Your task to perform on an android device: check battery use Image 0: 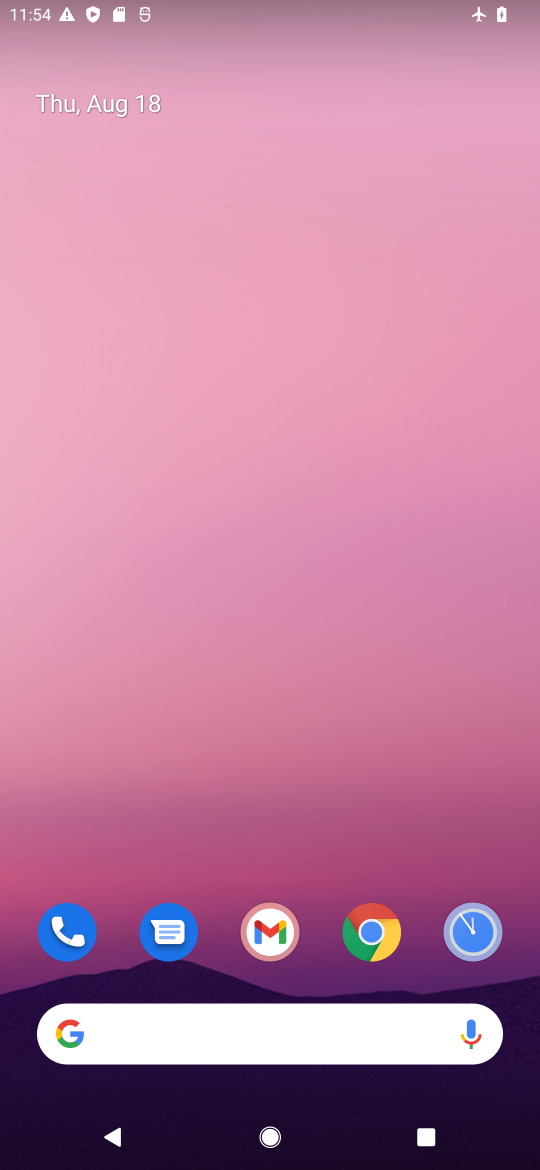
Step 0: drag from (329, 839) to (328, 211)
Your task to perform on an android device: check battery use Image 1: 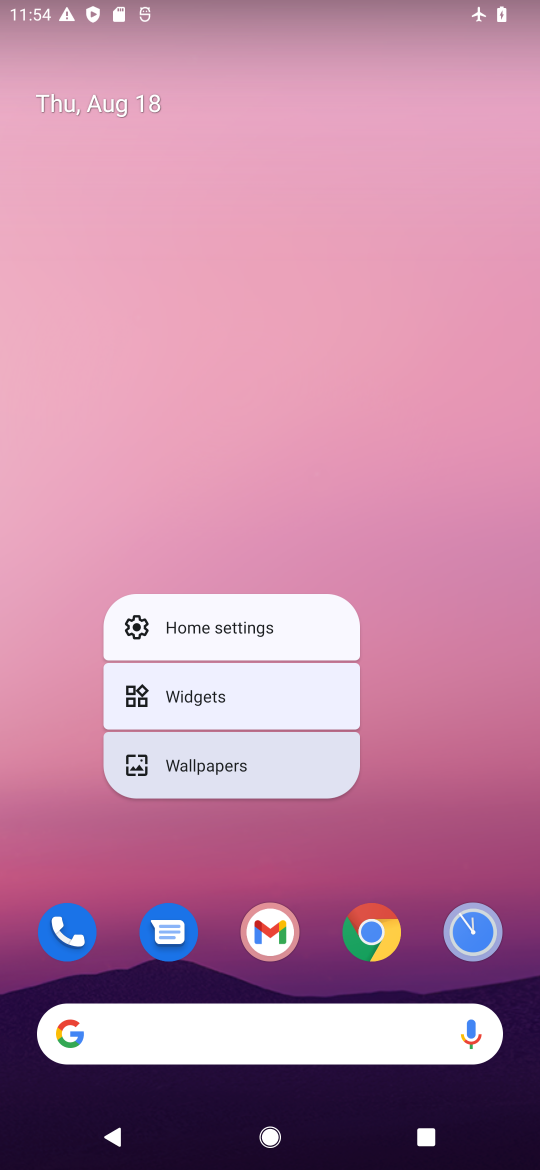
Step 1: drag from (223, 948) to (181, 291)
Your task to perform on an android device: check battery use Image 2: 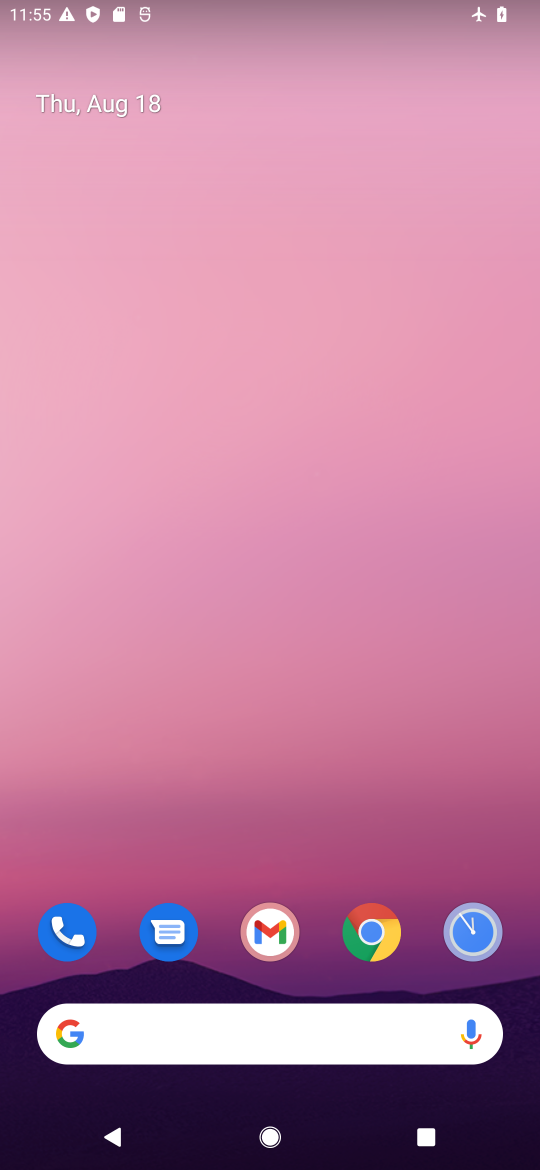
Step 2: drag from (221, 981) to (182, 24)
Your task to perform on an android device: check battery use Image 3: 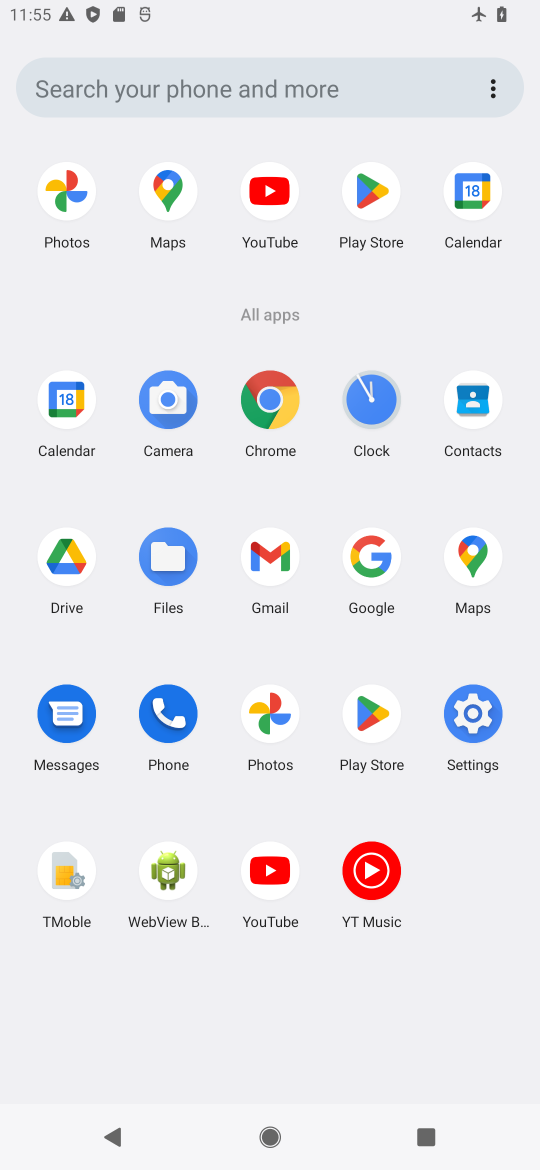
Step 3: click (482, 710)
Your task to perform on an android device: check battery use Image 4: 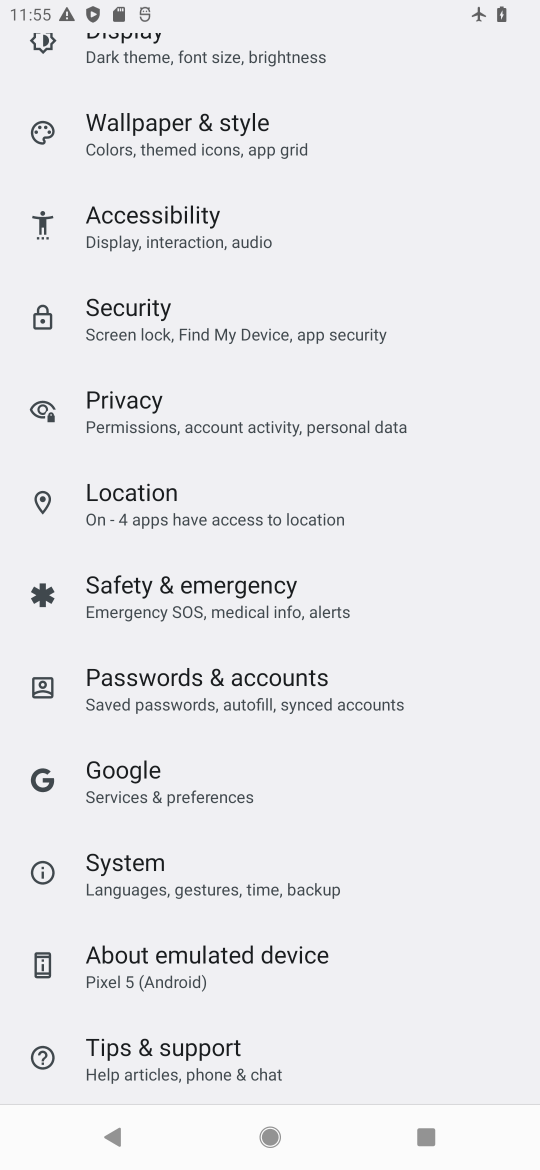
Step 4: drag from (374, 210) to (371, 362)
Your task to perform on an android device: check battery use Image 5: 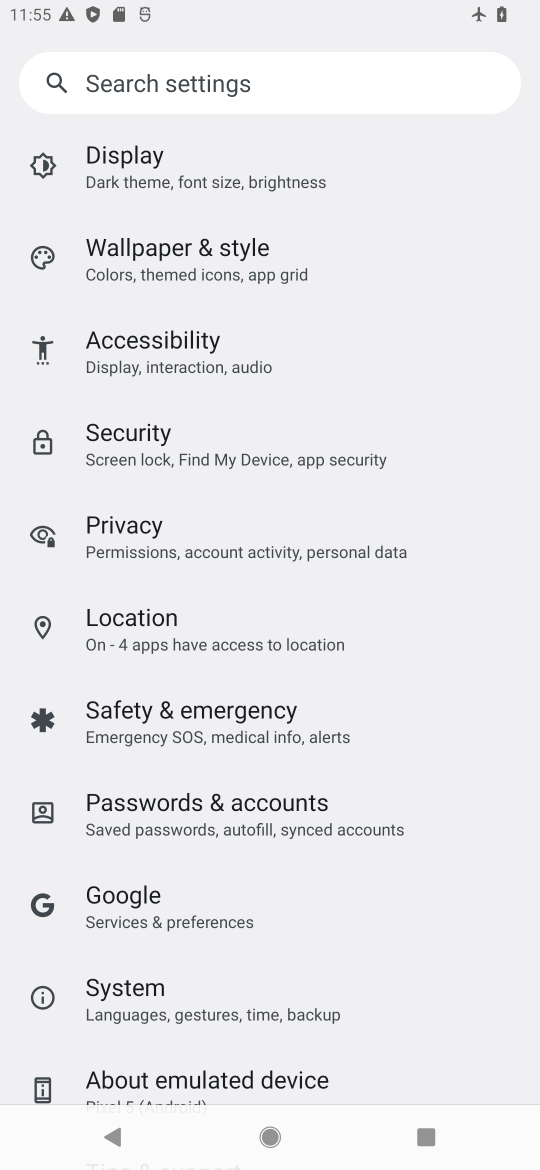
Step 5: drag from (357, 214) to (368, 703)
Your task to perform on an android device: check battery use Image 6: 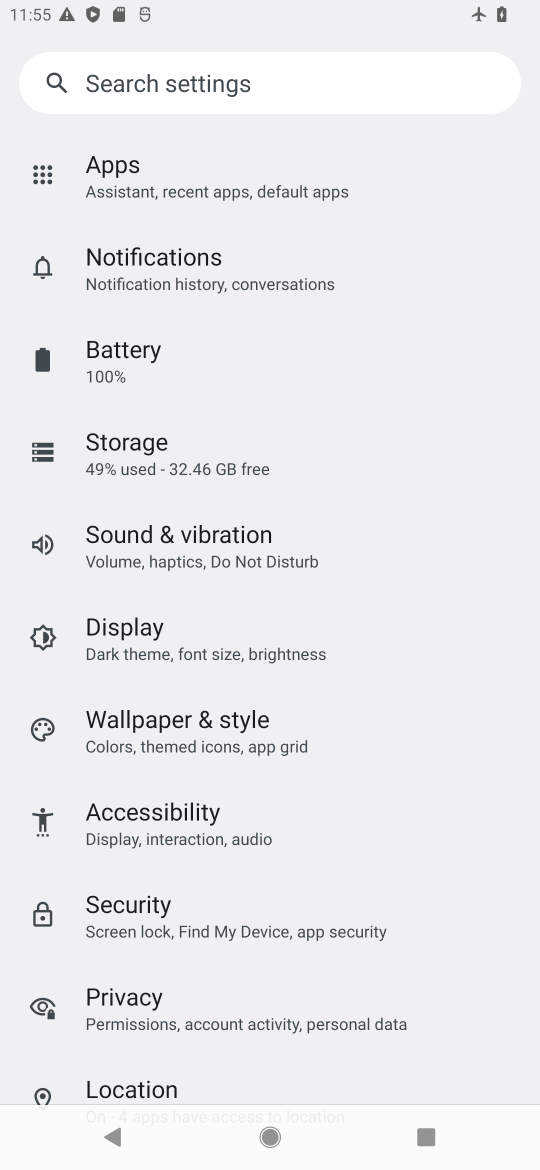
Step 6: click (109, 343)
Your task to perform on an android device: check battery use Image 7: 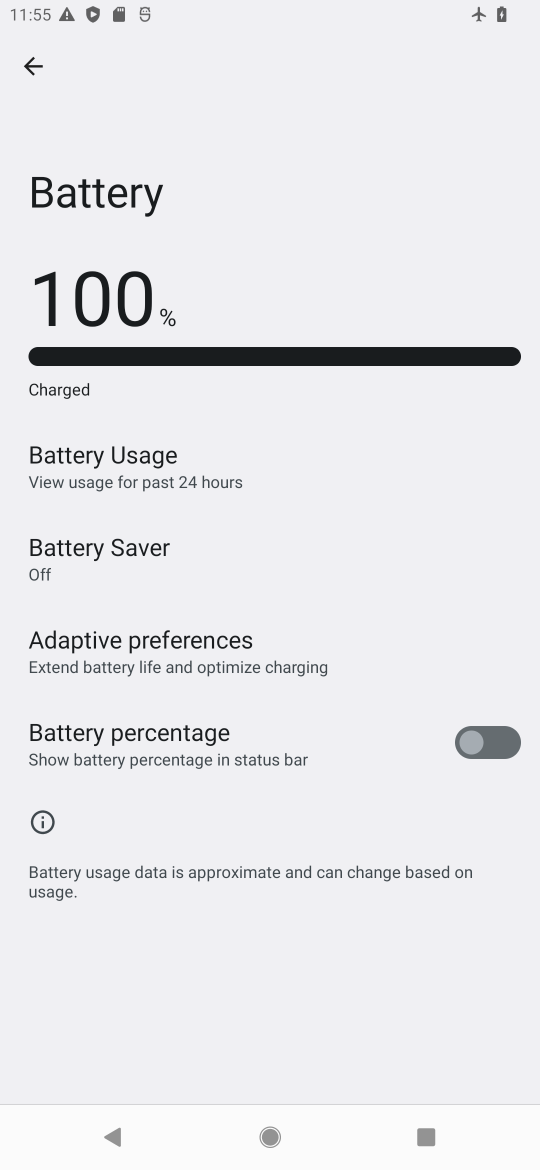
Step 7: task complete